Your task to perform on an android device: turn off priority inbox in the gmail app Image 0: 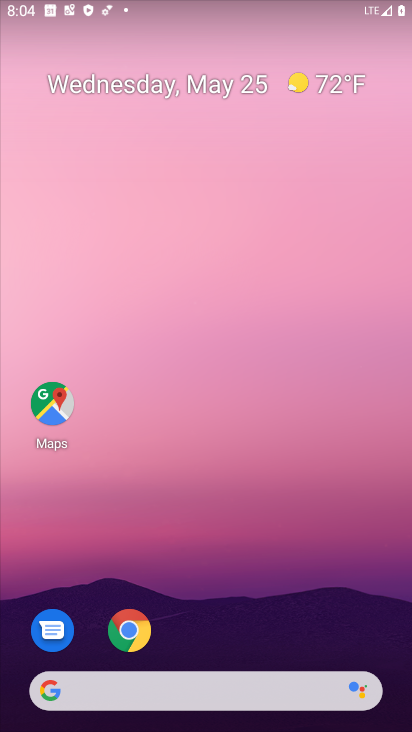
Step 0: drag from (210, 616) to (242, 290)
Your task to perform on an android device: turn off priority inbox in the gmail app Image 1: 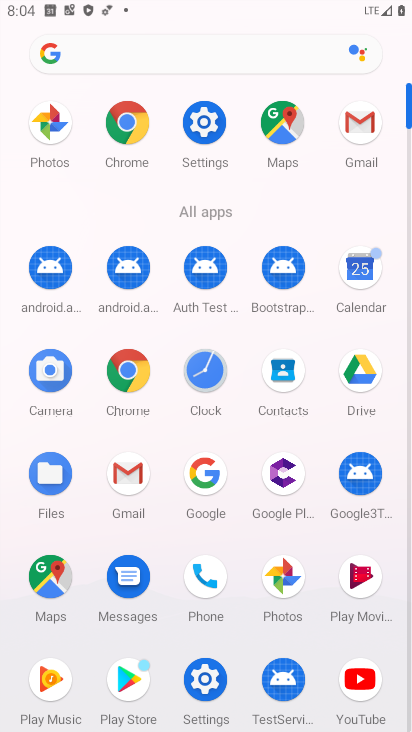
Step 1: click (350, 129)
Your task to perform on an android device: turn off priority inbox in the gmail app Image 2: 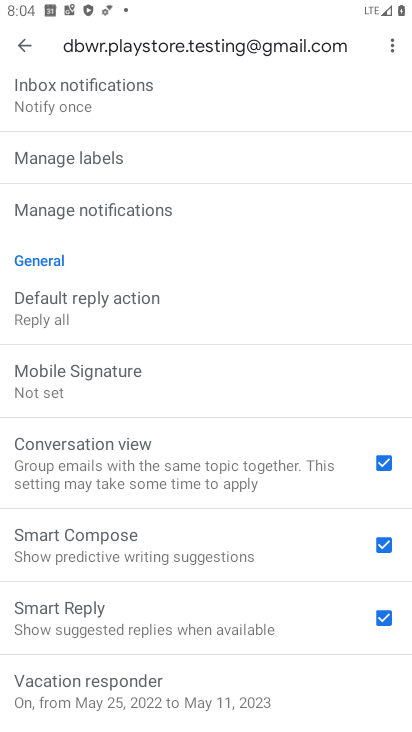
Step 2: drag from (212, 189) to (238, 456)
Your task to perform on an android device: turn off priority inbox in the gmail app Image 3: 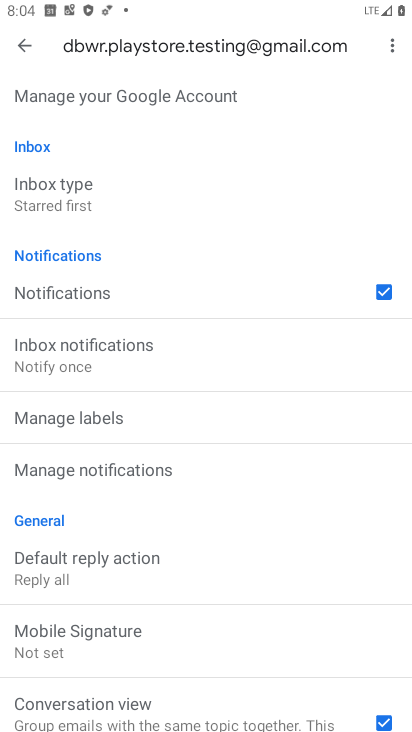
Step 3: drag from (199, 157) to (199, 394)
Your task to perform on an android device: turn off priority inbox in the gmail app Image 4: 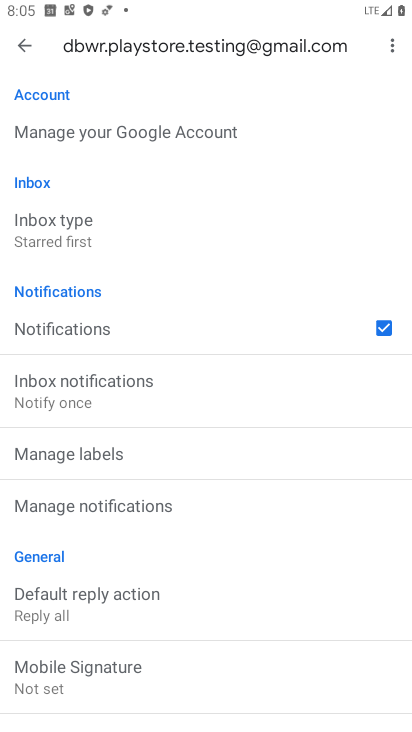
Step 4: click (144, 227)
Your task to perform on an android device: turn off priority inbox in the gmail app Image 5: 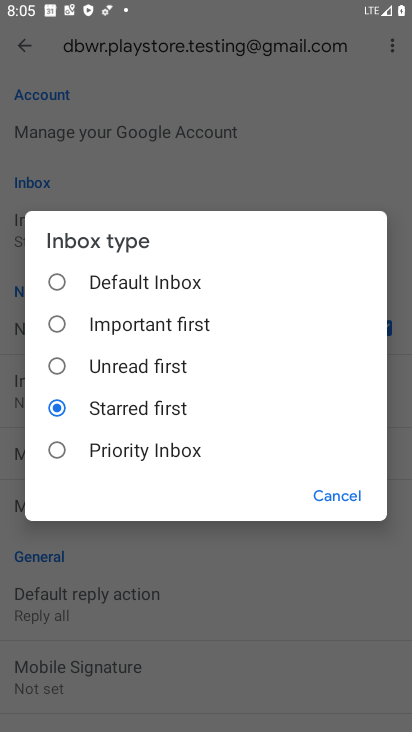
Step 5: click (164, 285)
Your task to perform on an android device: turn off priority inbox in the gmail app Image 6: 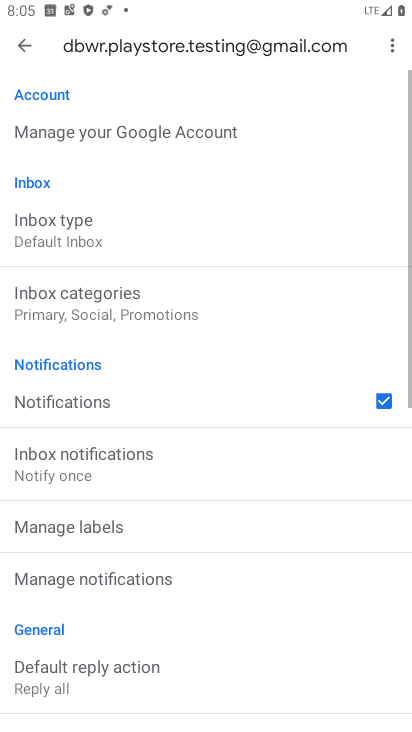
Step 6: task complete